Your task to perform on an android device: Go to settings Image 0: 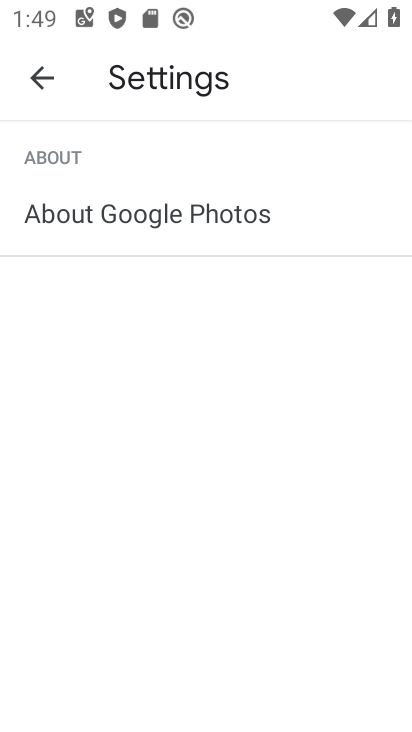
Step 0: press home button
Your task to perform on an android device: Go to settings Image 1: 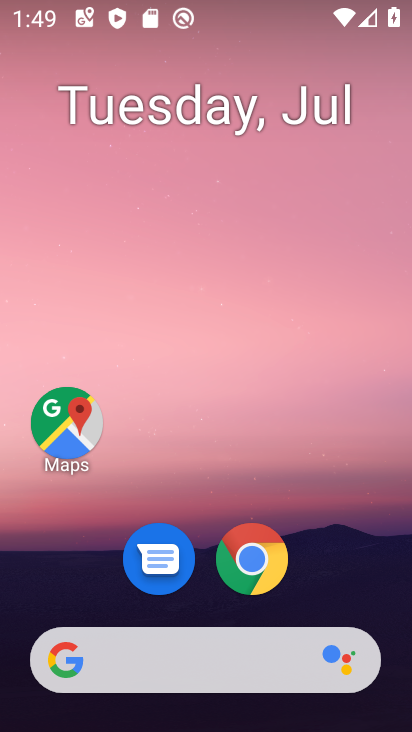
Step 1: drag from (327, 568) to (380, 79)
Your task to perform on an android device: Go to settings Image 2: 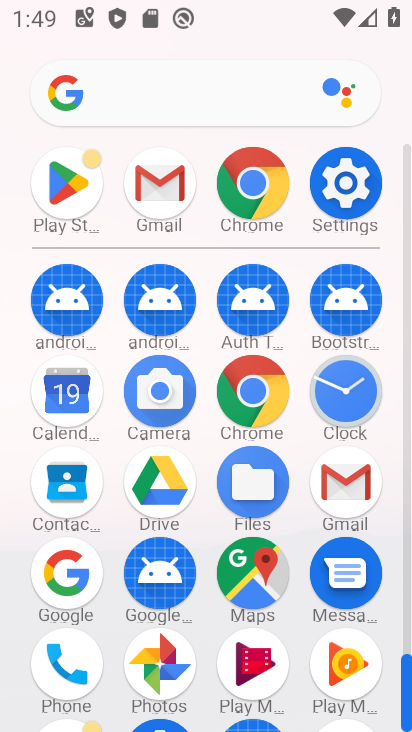
Step 2: click (335, 193)
Your task to perform on an android device: Go to settings Image 3: 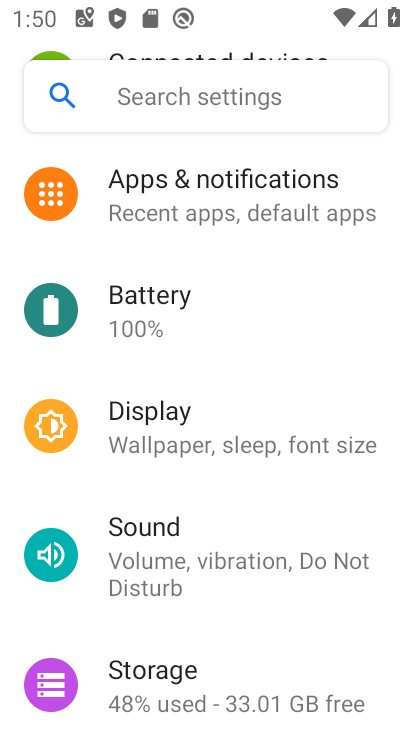
Step 3: task complete